Your task to perform on an android device: allow notifications from all sites in the chrome app Image 0: 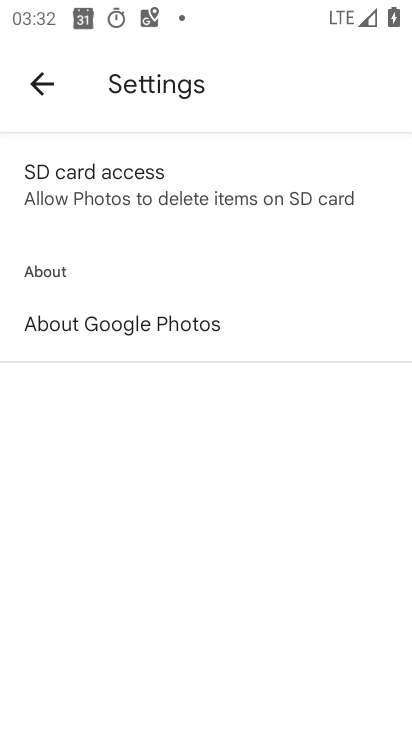
Step 0: press back button
Your task to perform on an android device: allow notifications from all sites in the chrome app Image 1: 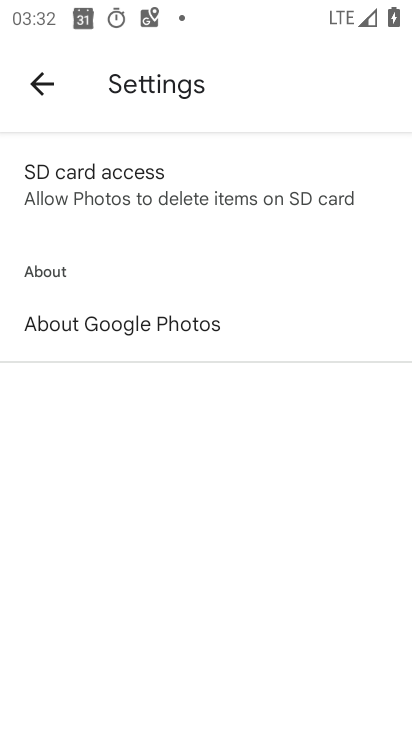
Step 1: press home button
Your task to perform on an android device: allow notifications from all sites in the chrome app Image 2: 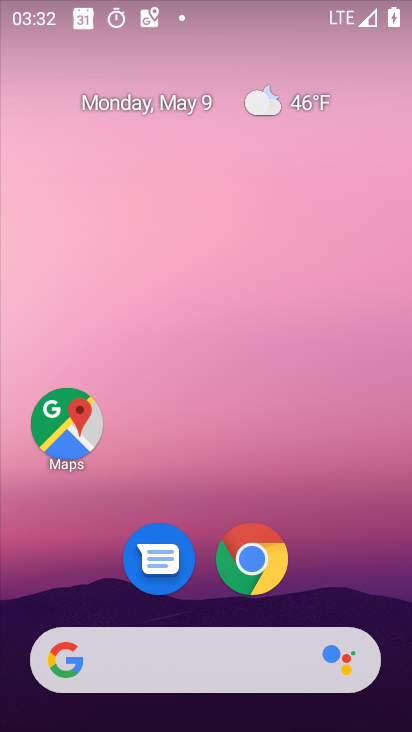
Step 2: click (250, 561)
Your task to perform on an android device: allow notifications from all sites in the chrome app Image 3: 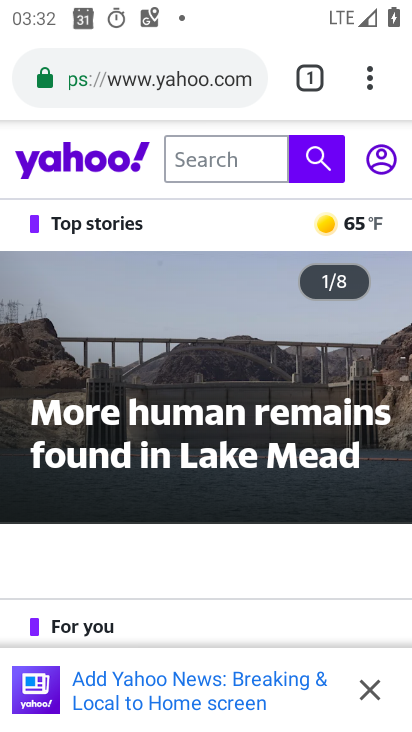
Step 3: click (373, 75)
Your task to perform on an android device: allow notifications from all sites in the chrome app Image 4: 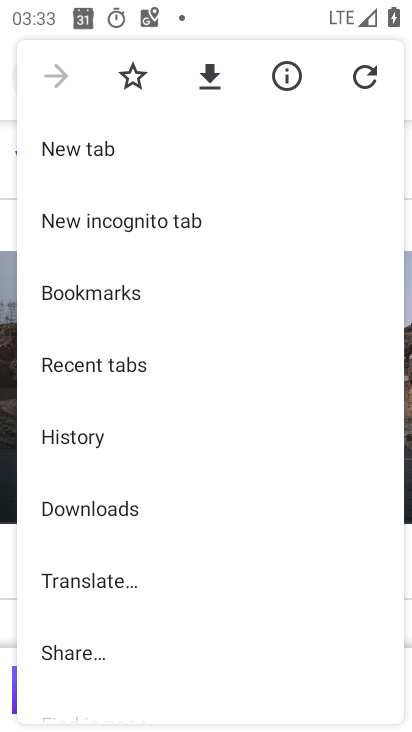
Step 4: drag from (143, 611) to (225, 371)
Your task to perform on an android device: allow notifications from all sites in the chrome app Image 5: 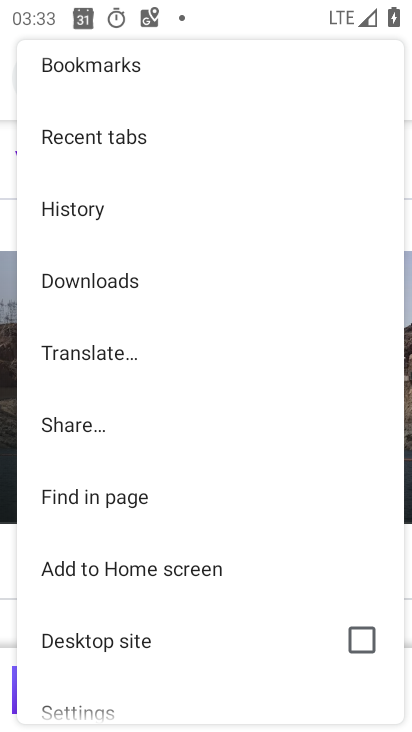
Step 5: drag from (148, 604) to (218, 446)
Your task to perform on an android device: allow notifications from all sites in the chrome app Image 6: 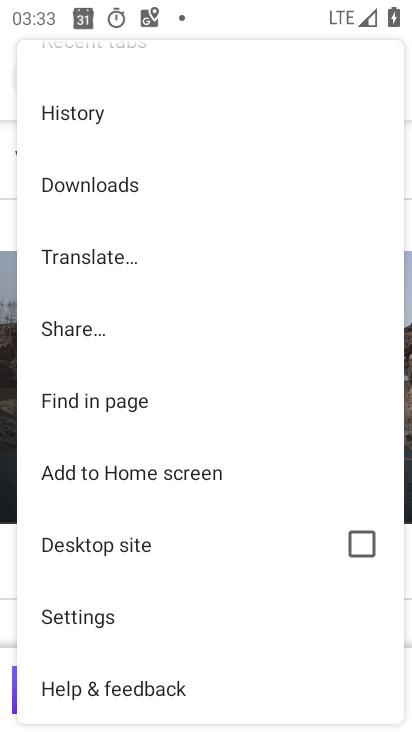
Step 6: click (88, 619)
Your task to perform on an android device: allow notifications from all sites in the chrome app Image 7: 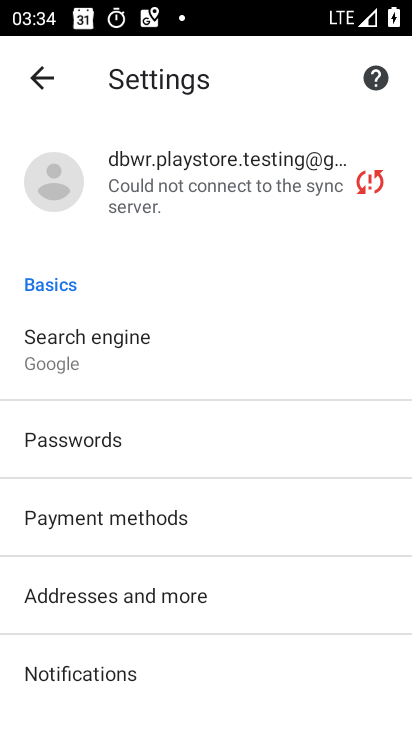
Step 7: drag from (138, 615) to (218, 450)
Your task to perform on an android device: allow notifications from all sites in the chrome app Image 8: 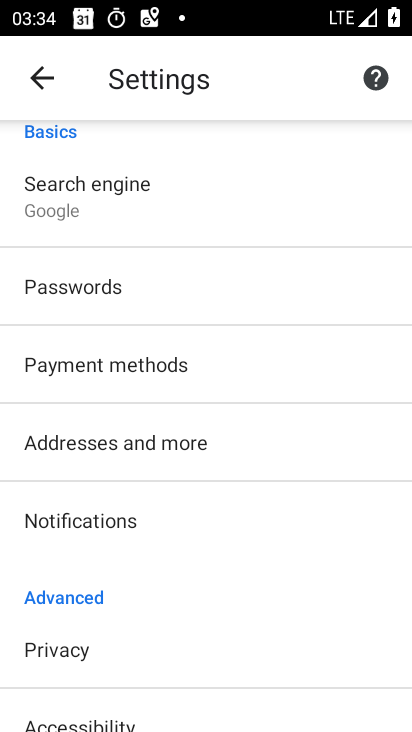
Step 8: drag from (93, 636) to (140, 535)
Your task to perform on an android device: allow notifications from all sites in the chrome app Image 9: 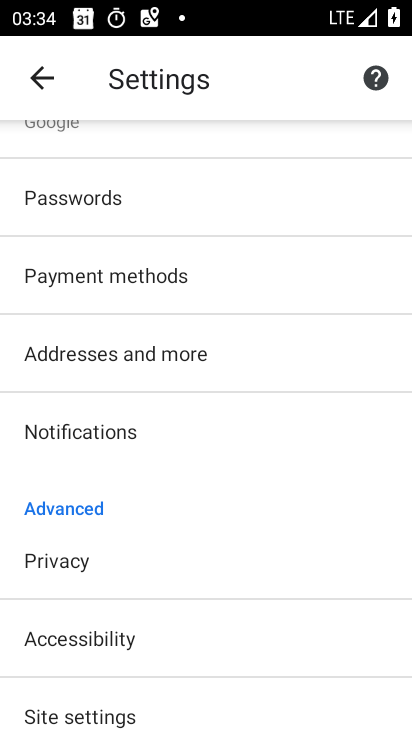
Step 9: click (113, 719)
Your task to perform on an android device: allow notifications from all sites in the chrome app Image 10: 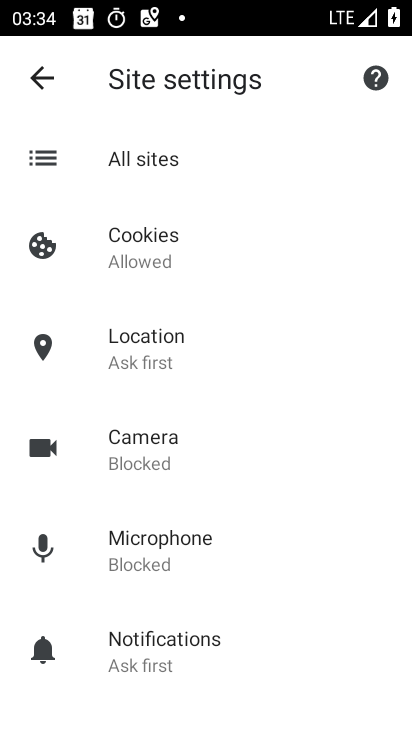
Step 10: click (180, 638)
Your task to perform on an android device: allow notifications from all sites in the chrome app Image 11: 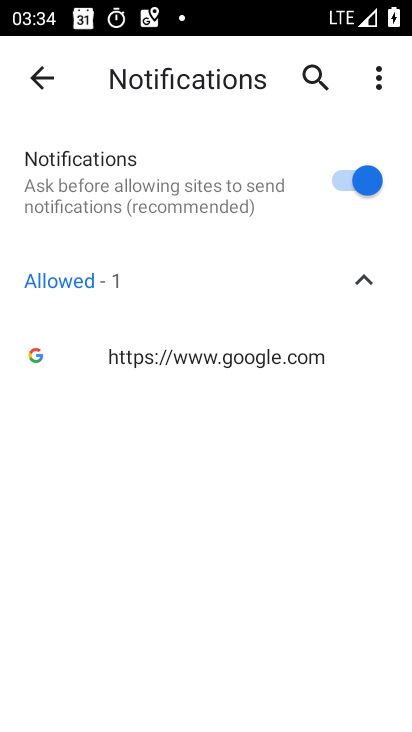
Step 11: task complete